Your task to perform on an android device: turn on bluetooth scan Image 0: 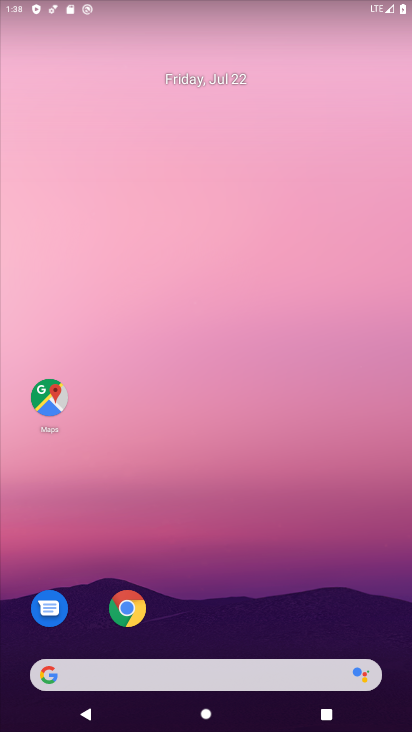
Step 0: drag from (394, 689) to (285, 105)
Your task to perform on an android device: turn on bluetooth scan Image 1: 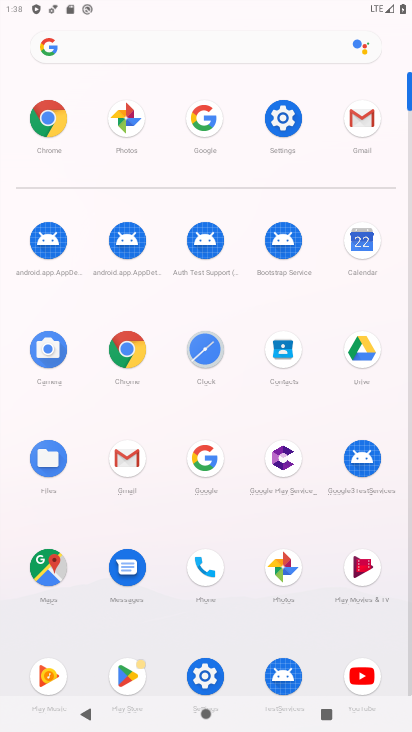
Step 1: click (280, 119)
Your task to perform on an android device: turn on bluetooth scan Image 2: 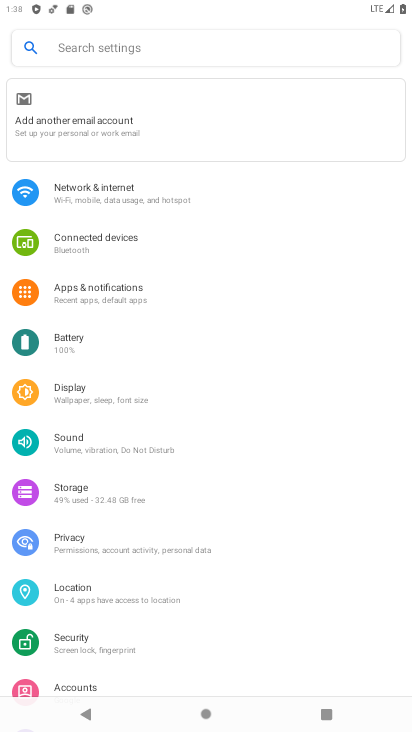
Step 2: click (71, 583)
Your task to perform on an android device: turn on bluetooth scan Image 3: 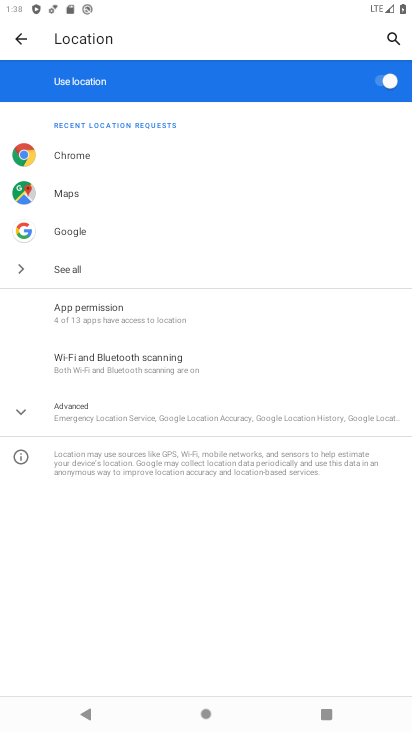
Step 3: click (97, 369)
Your task to perform on an android device: turn on bluetooth scan Image 4: 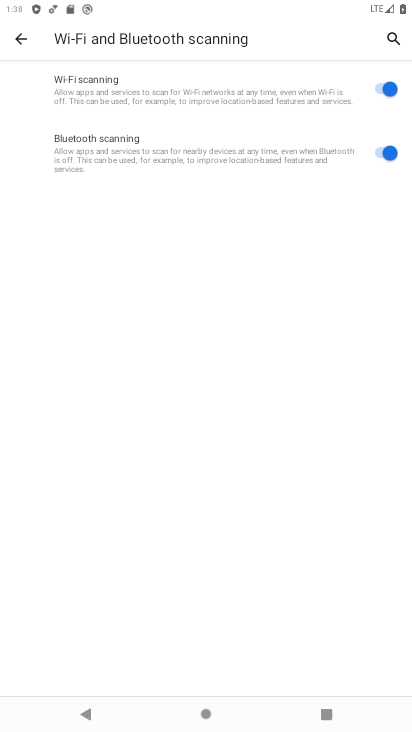
Step 4: task complete